Your task to perform on an android device: check battery use Image 0: 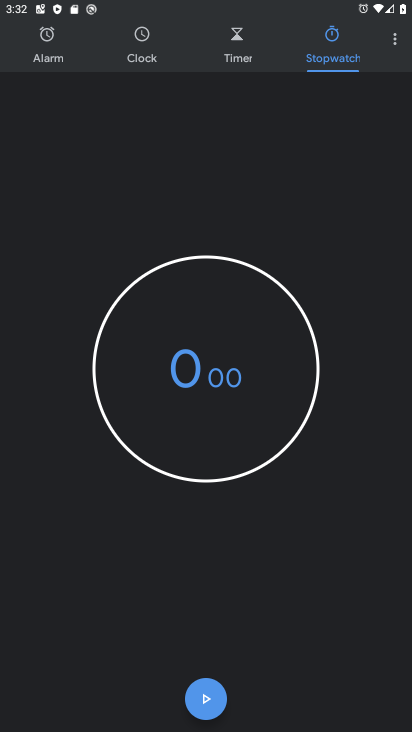
Step 0: press home button
Your task to perform on an android device: check battery use Image 1: 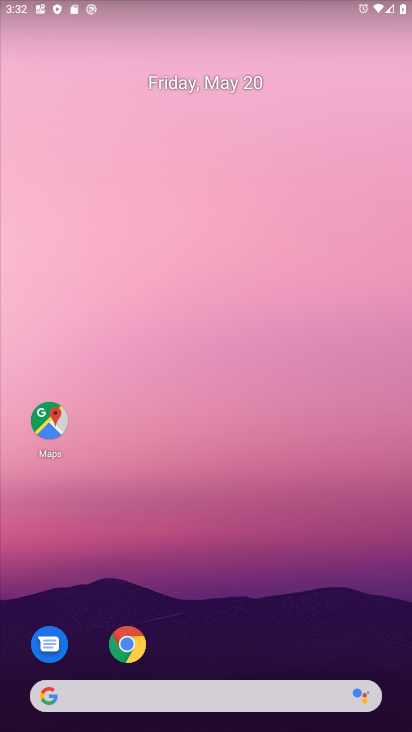
Step 1: drag from (235, 608) to (225, 165)
Your task to perform on an android device: check battery use Image 2: 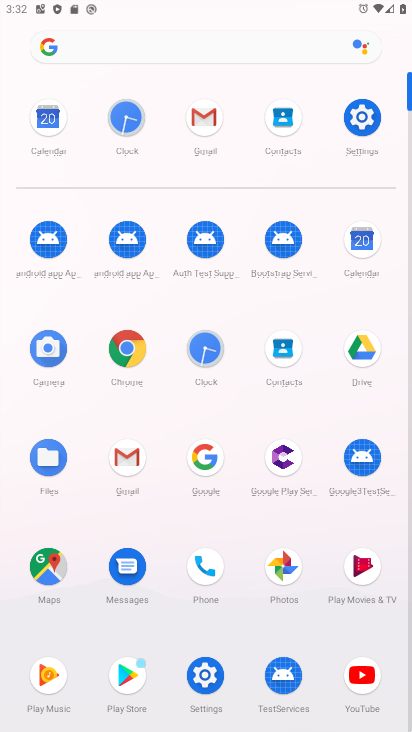
Step 2: click (356, 117)
Your task to perform on an android device: check battery use Image 3: 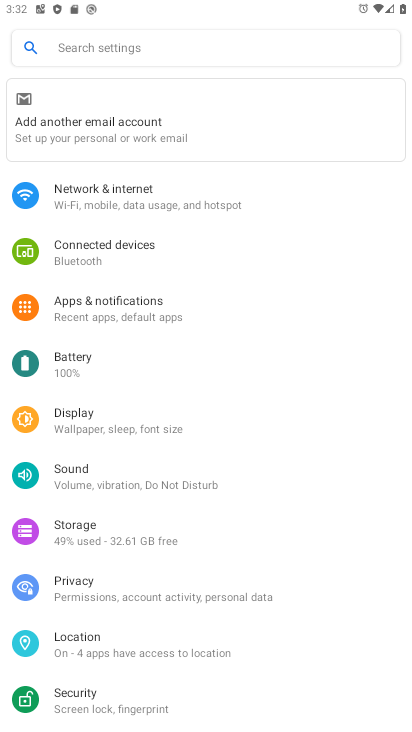
Step 3: click (124, 376)
Your task to perform on an android device: check battery use Image 4: 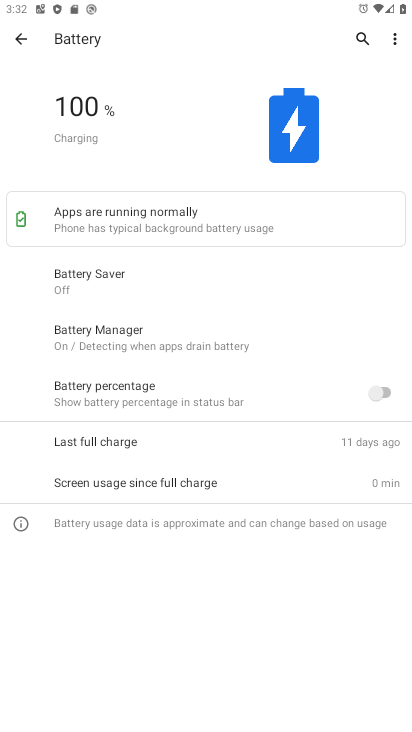
Step 4: task complete